Your task to perform on an android device: When is my next appointment? Image 0: 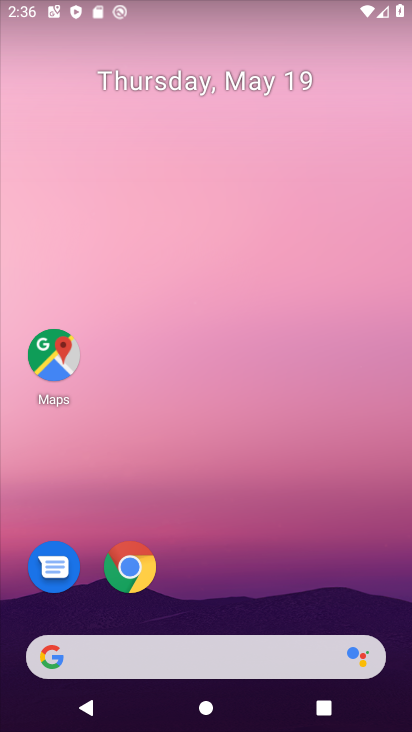
Step 0: drag from (242, 723) to (243, 69)
Your task to perform on an android device: When is my next appointment? Image 1: 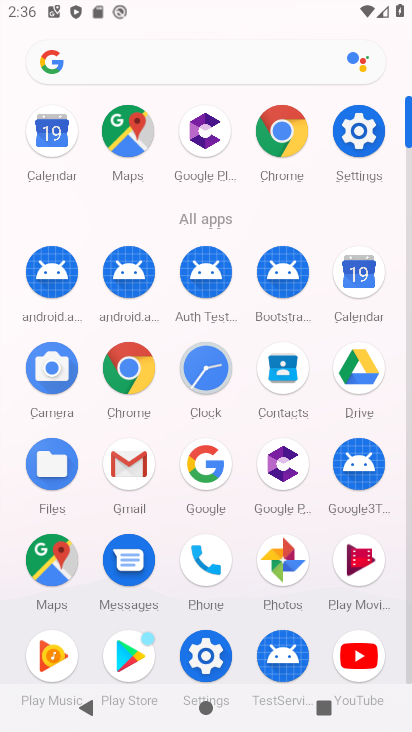
Step 1: click (363, 272)
Your task to perform on an android device: When is my next appointment? Image 2: 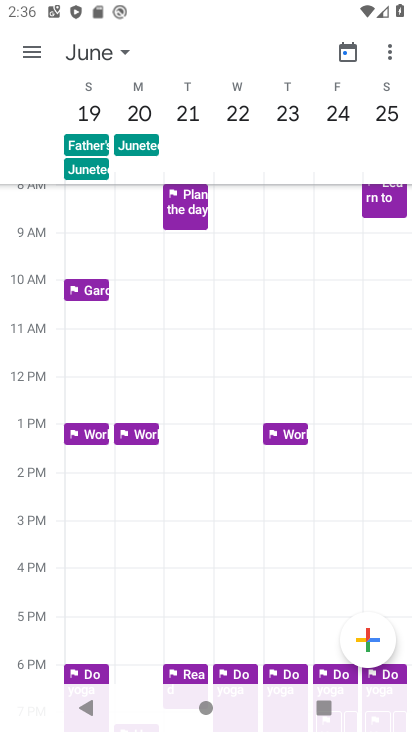
Step 2: click (124, 49)
Your task to perform on an android device: When is my next appointment? Image 3: 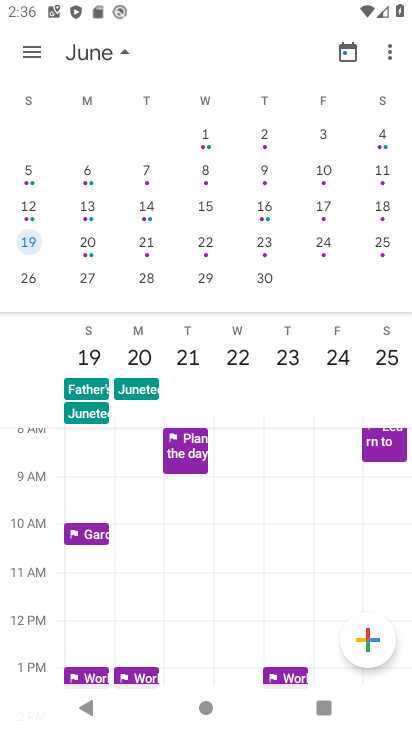
Step 3: drag from (44, 243) to (372, 232)
Your task to perform on an android device: When is my next appointment? Image 4: 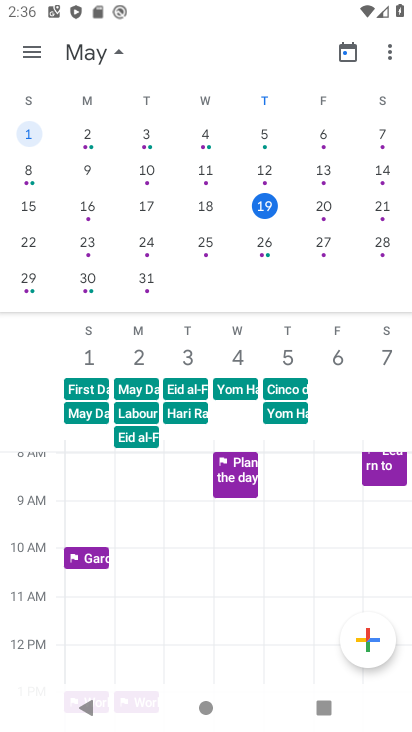
Step 4: click (324, 205)
Your task to perform on an android device: When is my next appointment? Image 5: 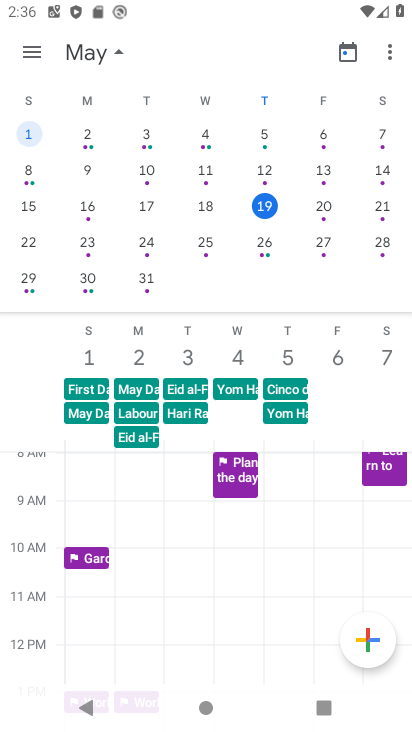
Step 5: click (321, 205)
Your task to perform on an android device: When is my next appointment? Image 6: 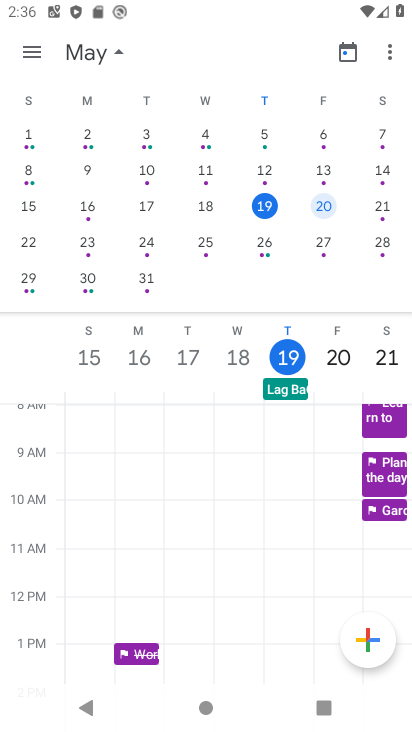
Step 6: click (321, 205)
Your task to perform on an android device: When is my next appointment? Image 7: 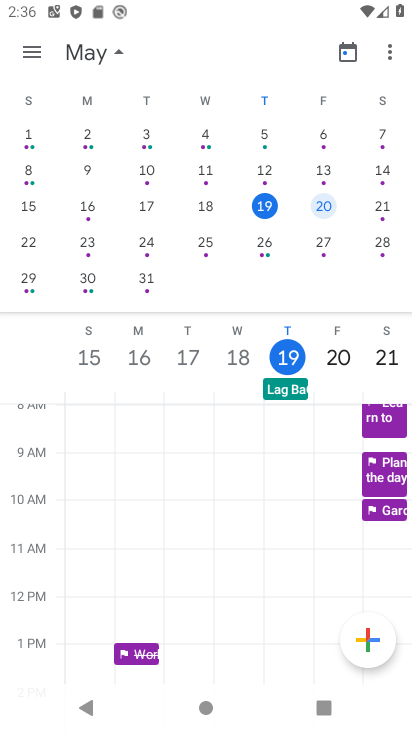
Step 7: click (335, 351)
Your task to perform on an android device: When is my next appointment? Image 8: 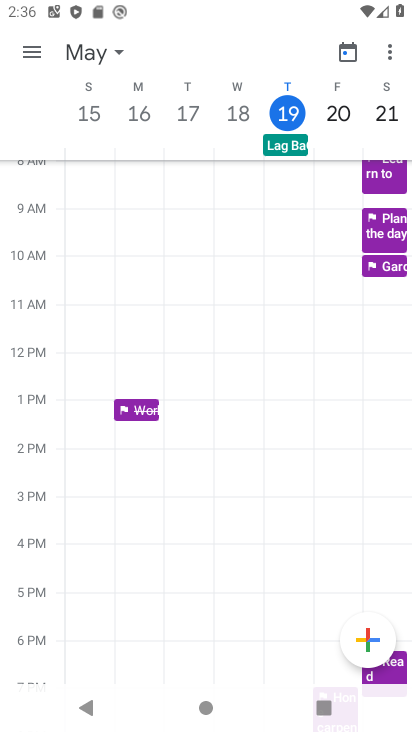
Step 8: click (337, 111)
Your task to perform on an android device: When is my next appointment? Image 9: 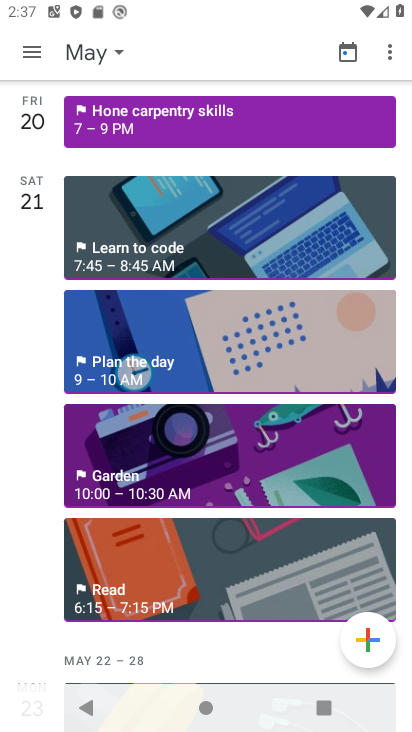
Step 9: task complete